Your task to perform on an android device: Open Reddit.com Image 0: 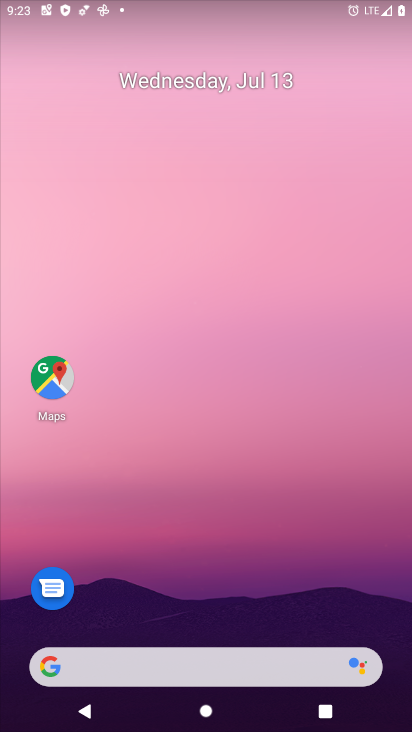
Step 0: click (260, 661)
Your task to perform on an android device: Open Reddit.com Image 1: 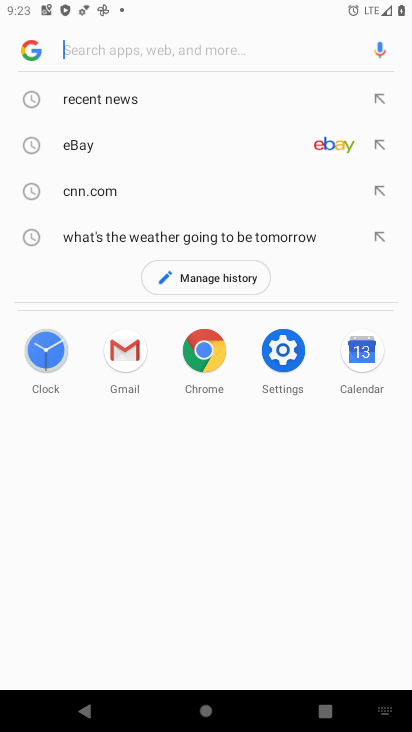
Step 1: type "reddit.com"
Your task to perform on an android device: Open Reddit.com Image 2: 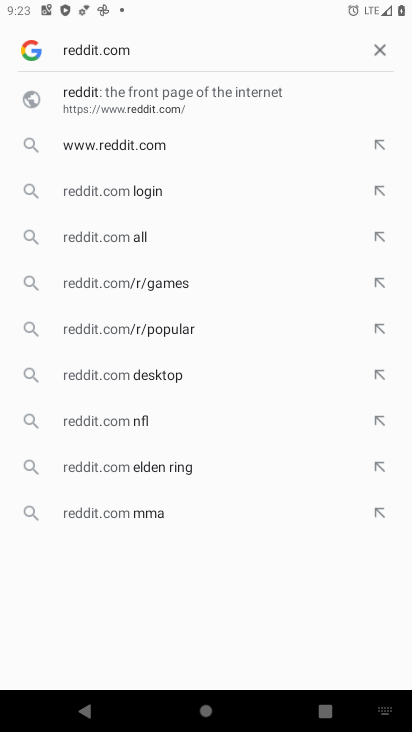
Step 2: click (191, 90)
Your task to perform on an android device: Open Reddit.com Image 3: 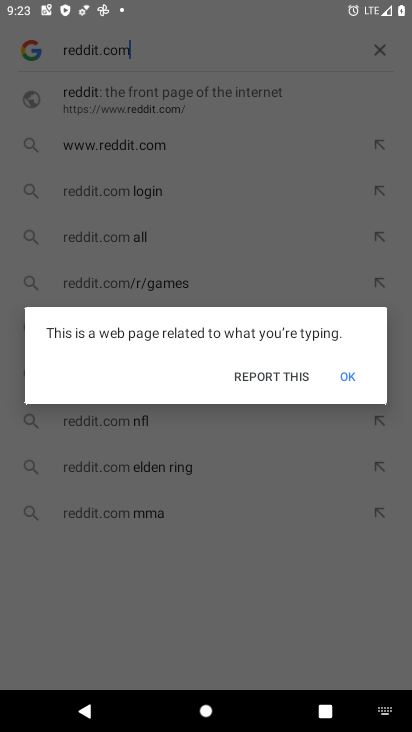
Step 3: click (346, 378)
Your task to perform on an android device: Open Reddit.com Image 4: 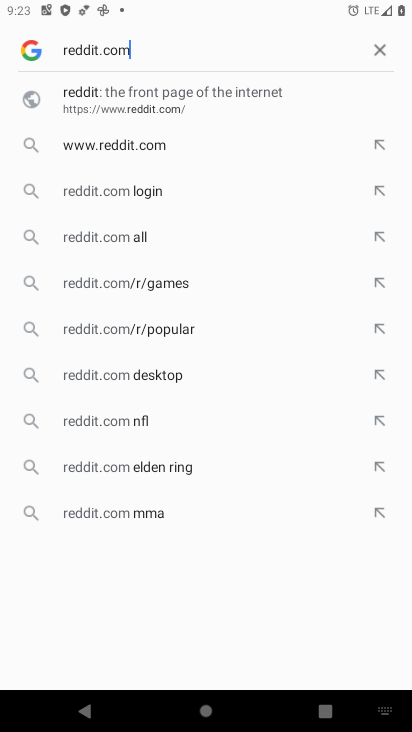
Step 4: click (262, 84)
Your task to perform on an android device: Open Reddit.com Image 5: 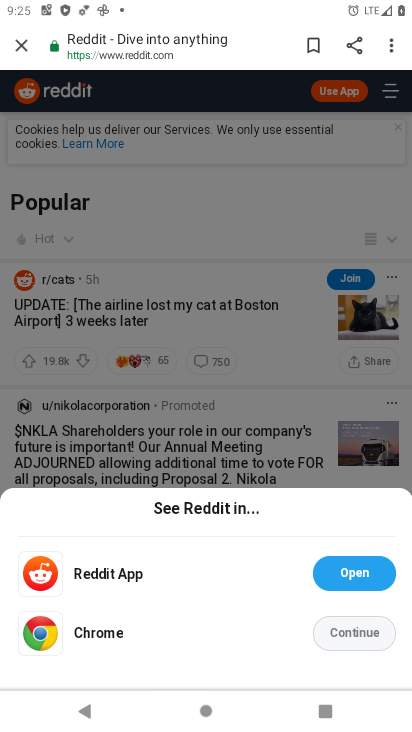
Step 5: task complete